Your task to perform on an android device: check google app version Image 0: 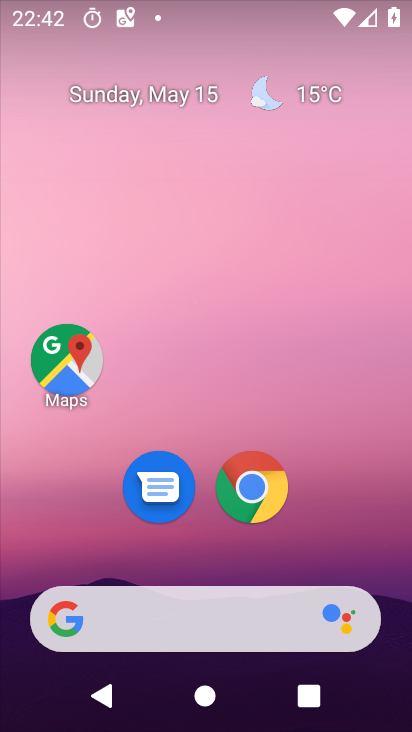
Step 0: drag from (309, 668) to (410, 177)
Your task to perform on an android device: check google app version Image 1: 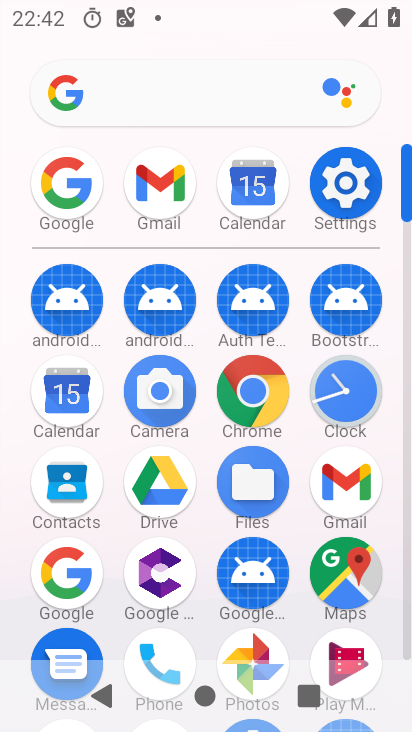
Step 1: click (70, 190)
Your task to perform on an android device: check google app version Image 2: 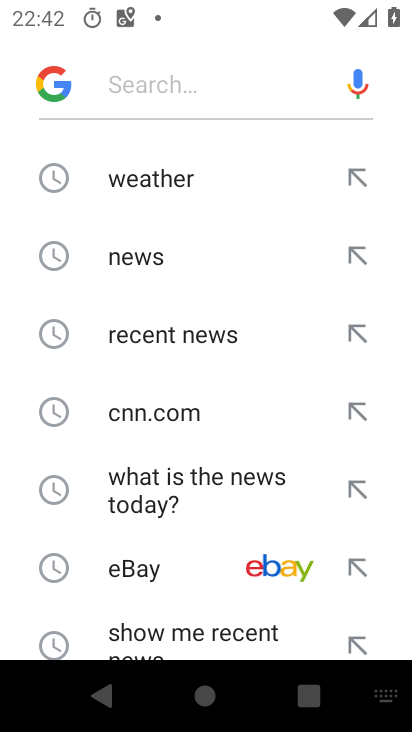
Step 2: press back button
Your task to perform on an android device: check google app version Image 3: 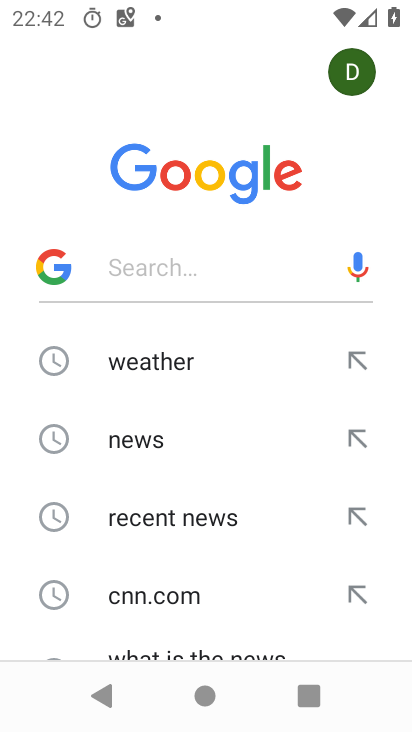
Step 3: drag from (266, 539) to (277, 371)
Your task to perform on an android device: check google app version Image 4: 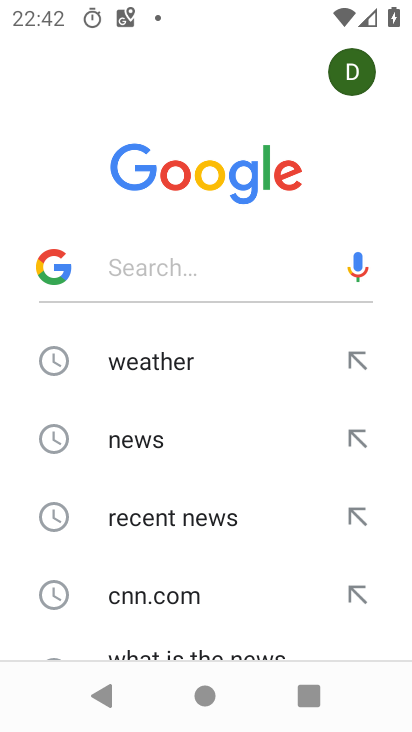
Step 4: press back button
Your task to perform on an android device: check google app version Image 5: 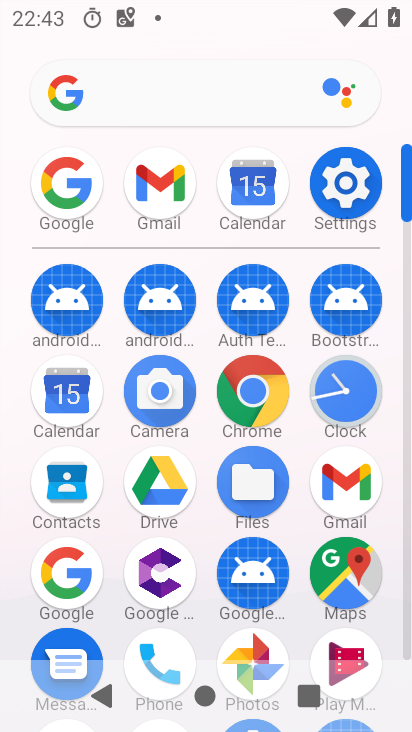
Step 5: click (71, 578)
Your task to perform on an android device: check google app version Image 6: 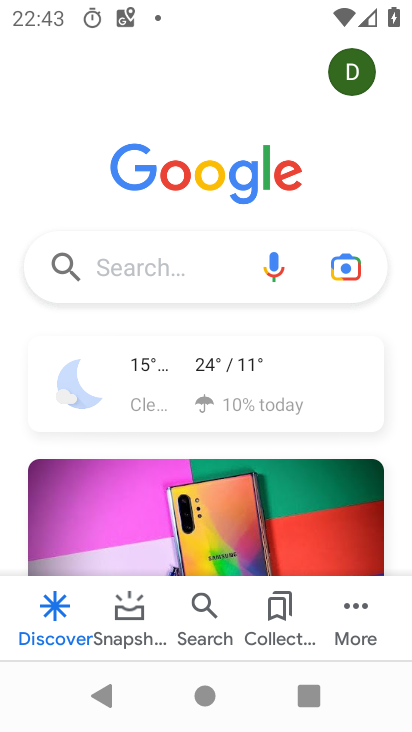
Step 6: click (366, 634)
Your task to perform on an android device: check google app version Image 7: 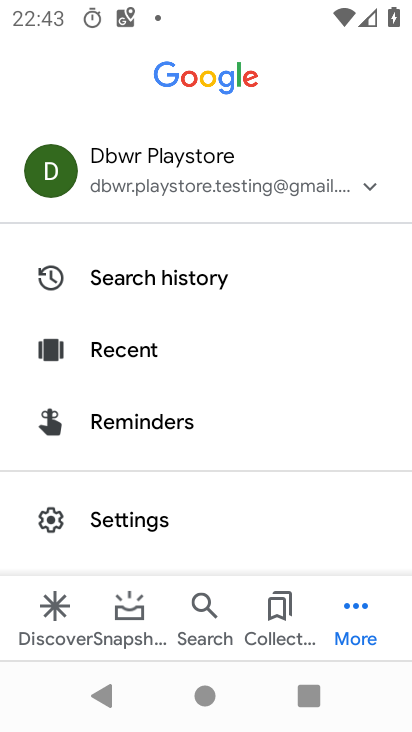
Step 7: click (105, 530)
Your task to perform on an android device: check google app version Image 8: 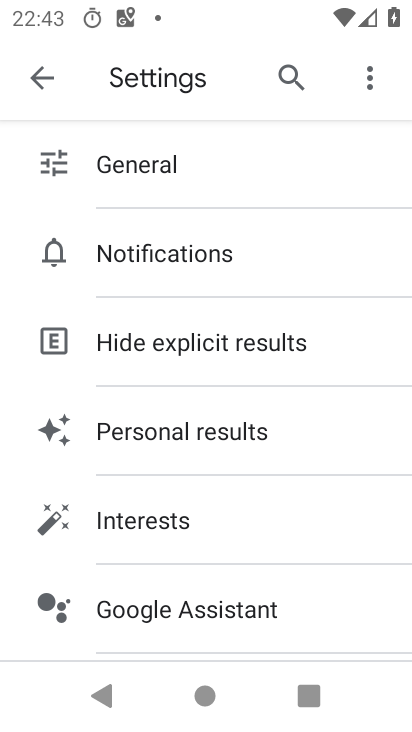
Step 8: drag from (340, 608) to (325, 393)
Your task to perform on an android device: check google app version Image 9: 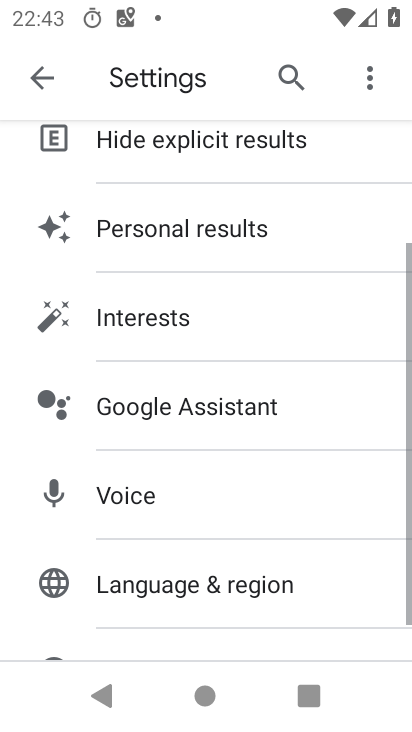
Step 9: drag from (296, 529) to (296, 409)
Your task to perform on an android device: check google app version Image 10: 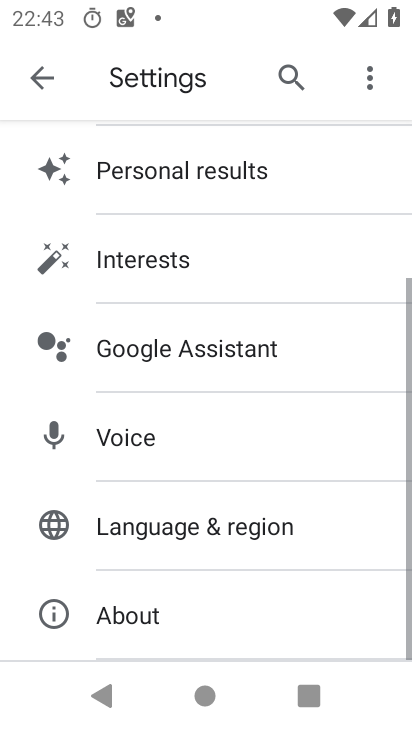
Step 10: click (114, 608)
Your task to perform on an android device: check google app version Image 11: 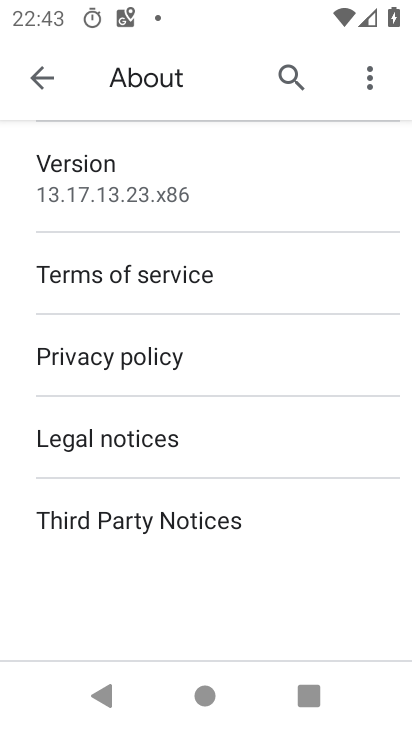
Step 11: click (114, 178)
Your task to perform on an android device: check google app version Image 12: 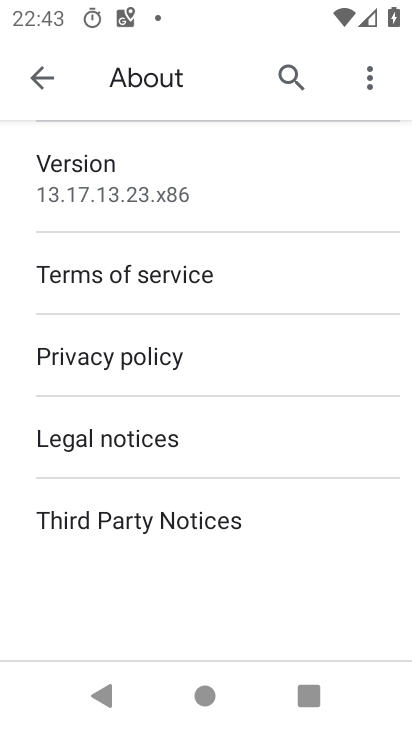
Step 12: task complete